Your task to perform on an android device: What's the weather? Image 0: 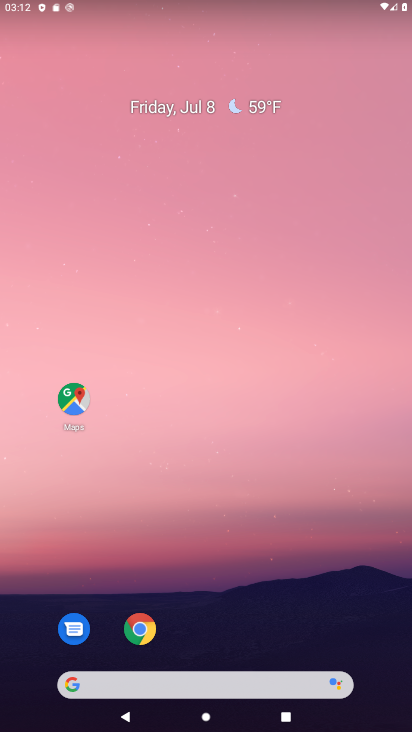
Step 0: drag from (229, 646) to (222, 128)
Your task to perform on an android device: What's the weather? Image 1: 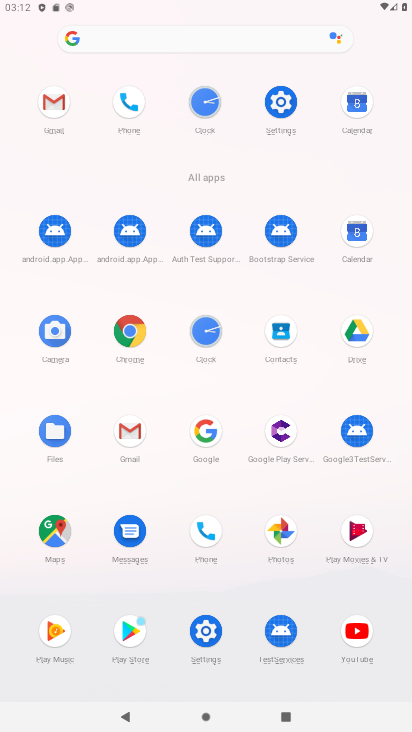
Step 1: press back button
Your task to perform on an android device: What's the weather? Image 2: 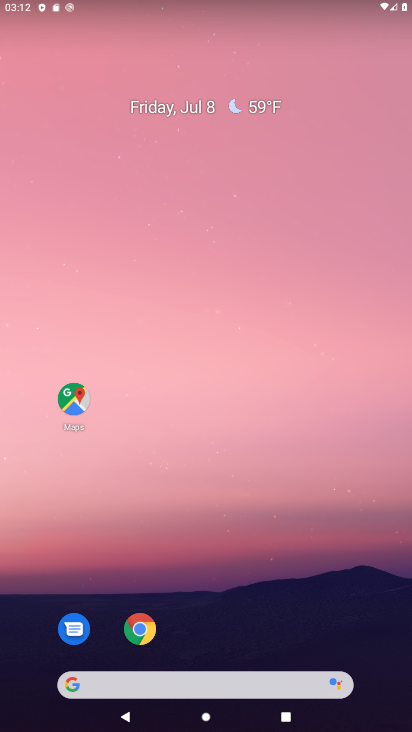
Step 2: click (190, 681)
Your task to perform on an android device: What's the weather? Image 3: 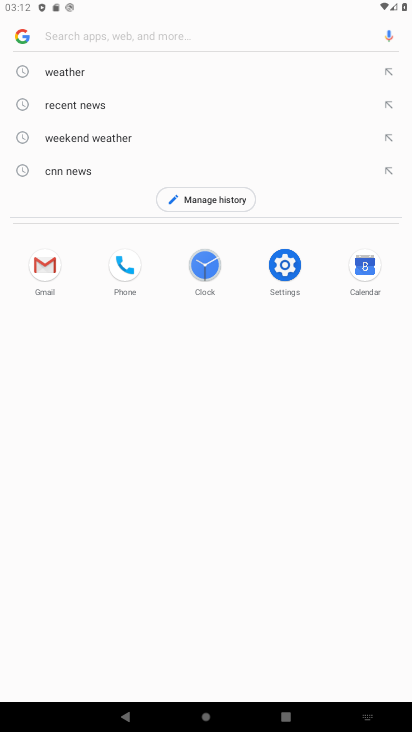
Step 3: click (87, 67)
Your task to perform on an android device: What's the weather? Image 4: 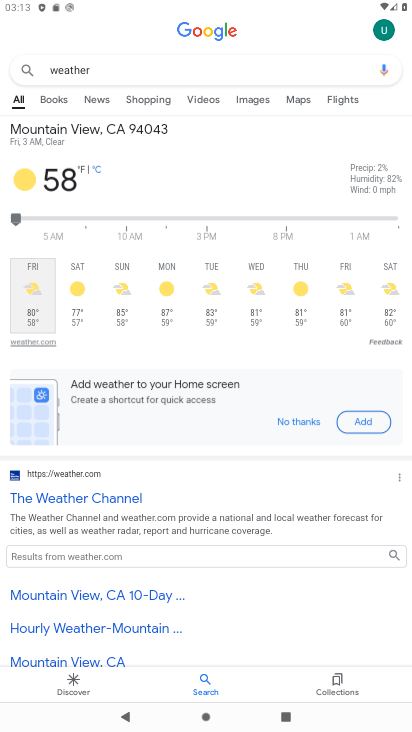
Step 4: task complete